Your task to perform on an android device: Search for the most popular books on Goodreads Image 0: 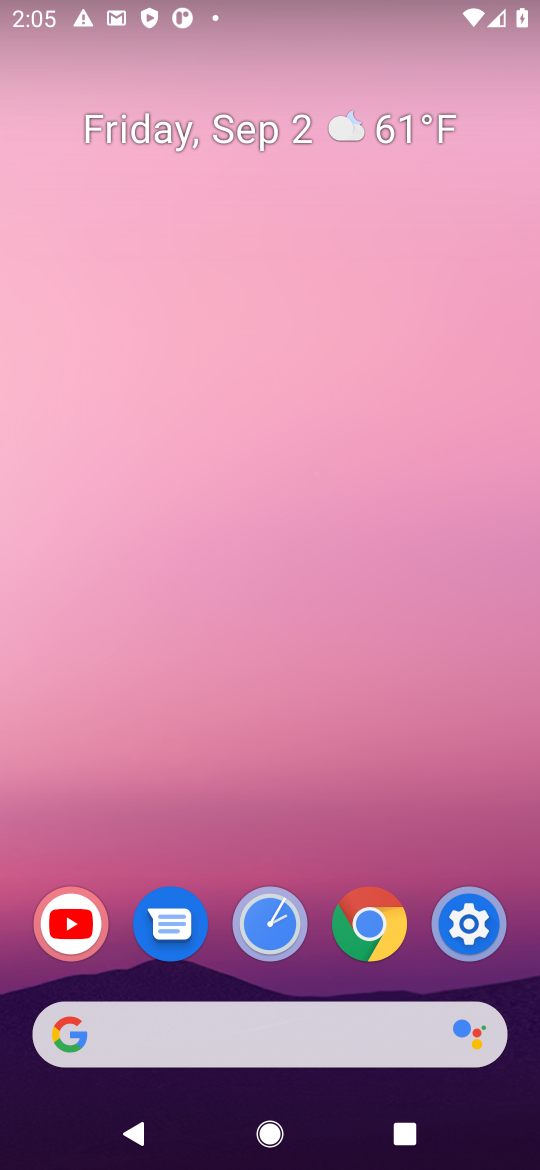
Step 0: press home button
Your task to perform on an android device: Search for the most popular books on Goodreads Image 1: 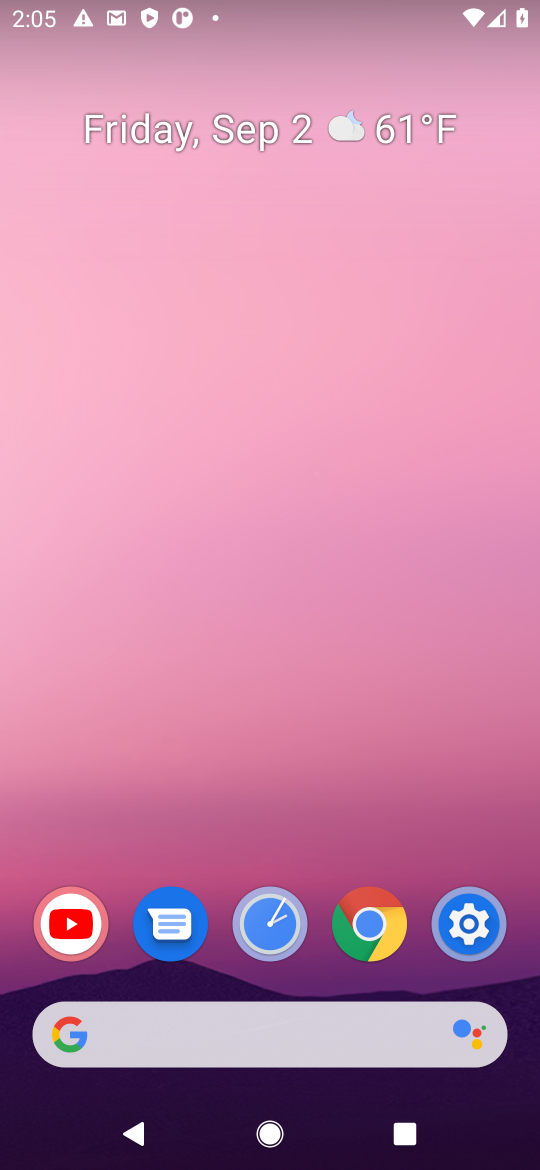
Step 1: click (368, 1037)
Your task to perform on an android device: Search for the most popular books on Goodreads Image 2: 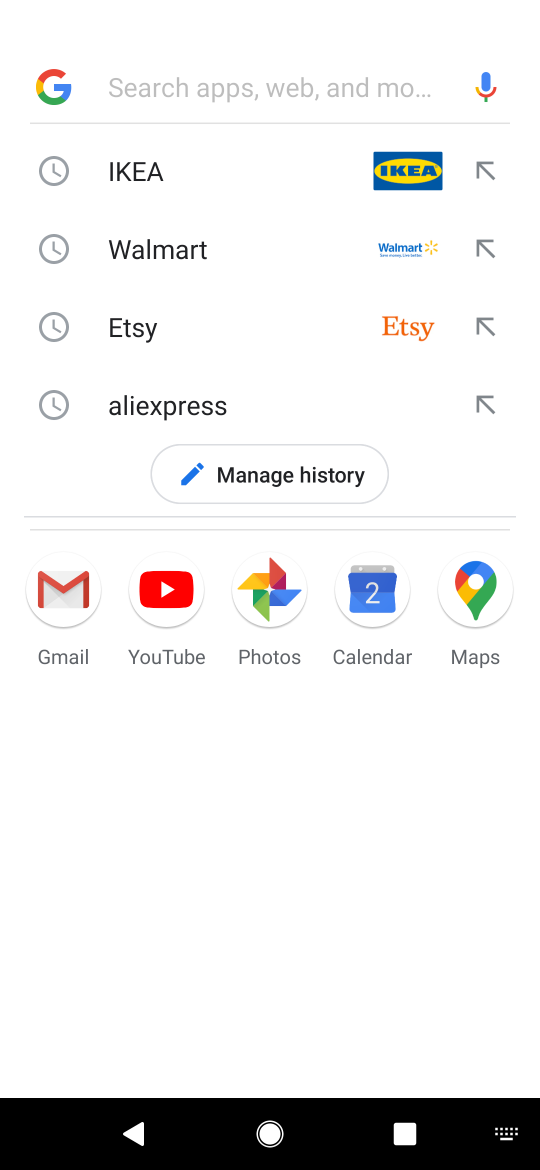
Step 2: press enter
Your task to perform on an android device: Search for the most popular books on Goodreads Image 3: 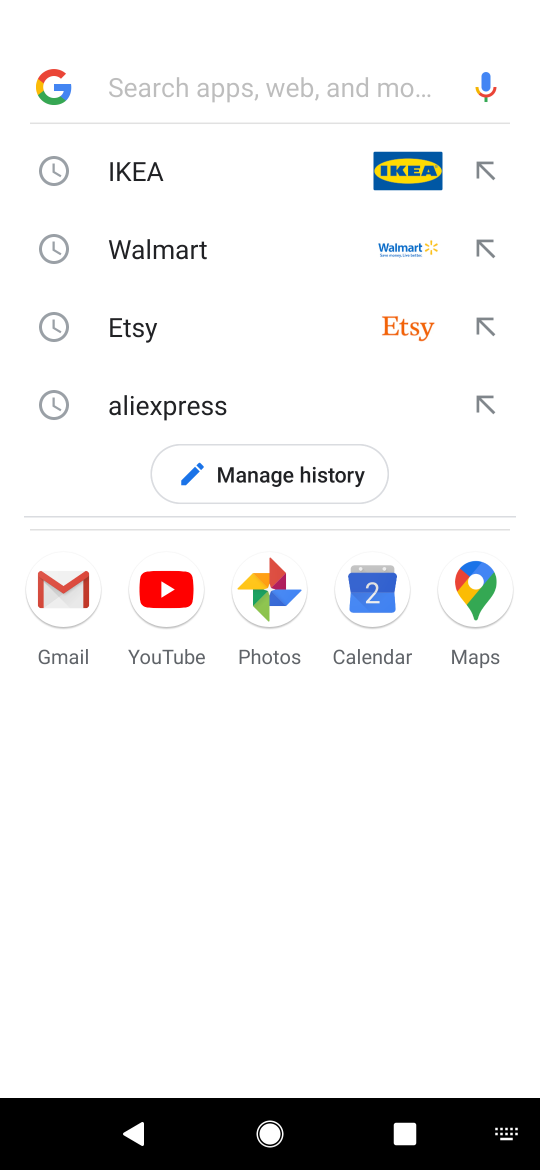
Step 3: type "gooddreads"
Your task to perform on an android device: Search for the most popular books on Goodreads Image 4: 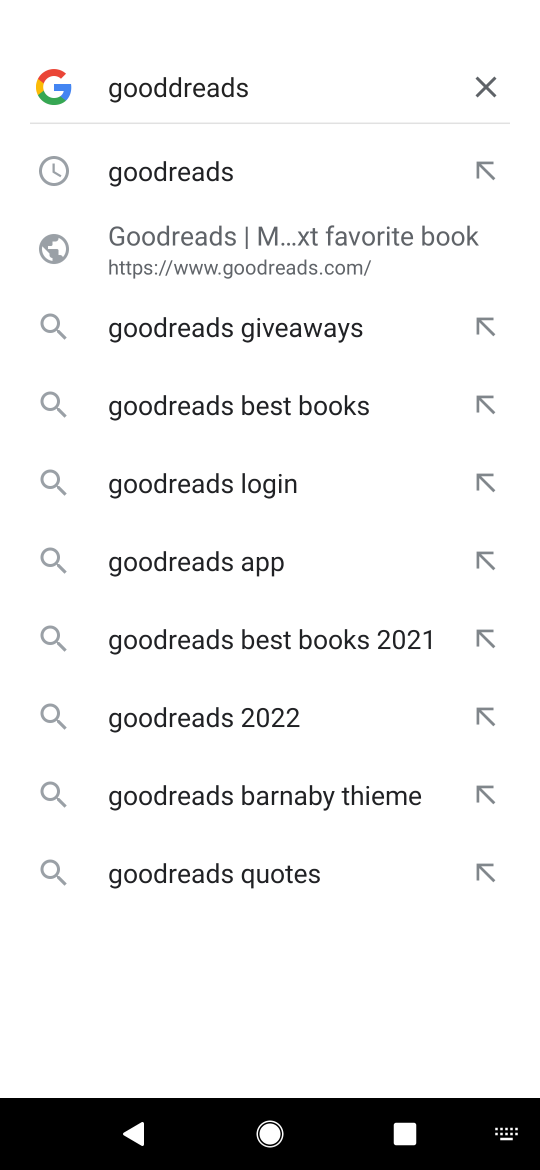
Step 4: click (249, 177)
Your task to perform on an android device: Search for the most popular books on Goodreads Image 5: 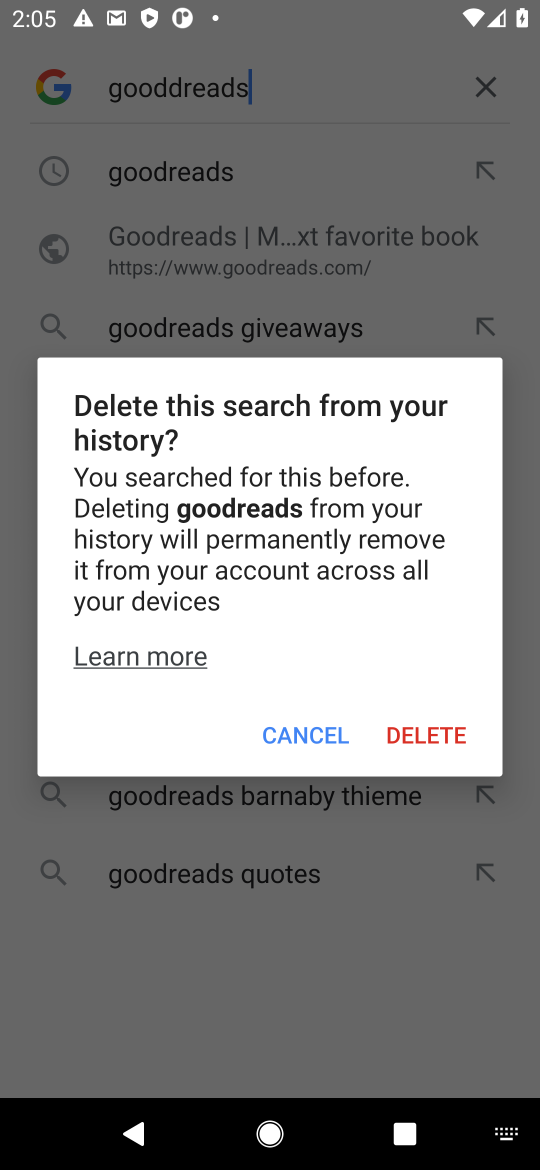
Step 5: click (285, 727)
Your task to perform on an android device: Search for the most popular books on Goodreads Image 6: 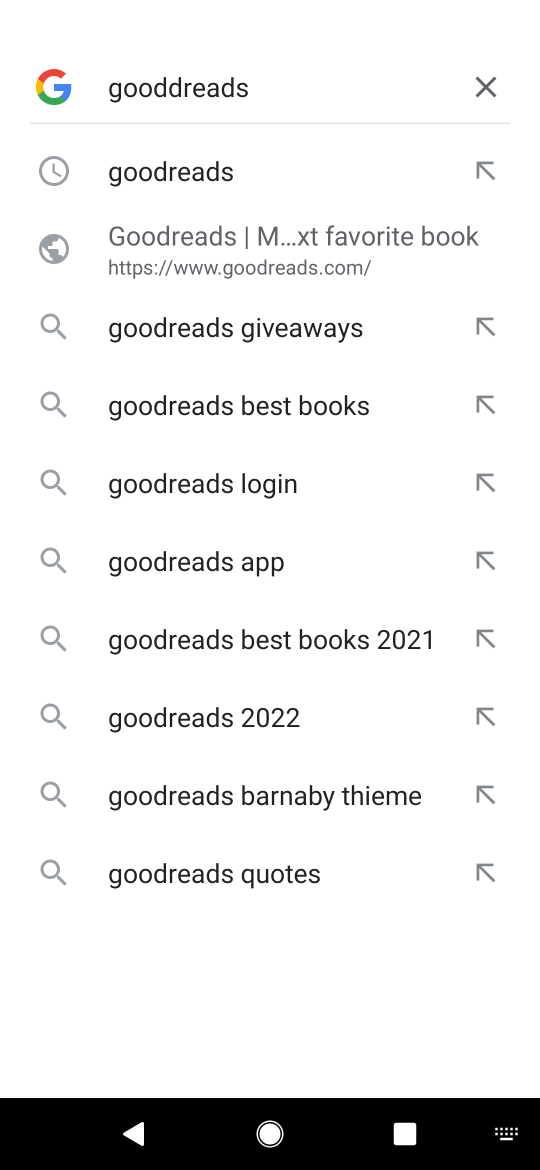
Step 6: click (191, 169)
Your task to perform on an android device: Search for the most popular books on Goodreads Image 7: 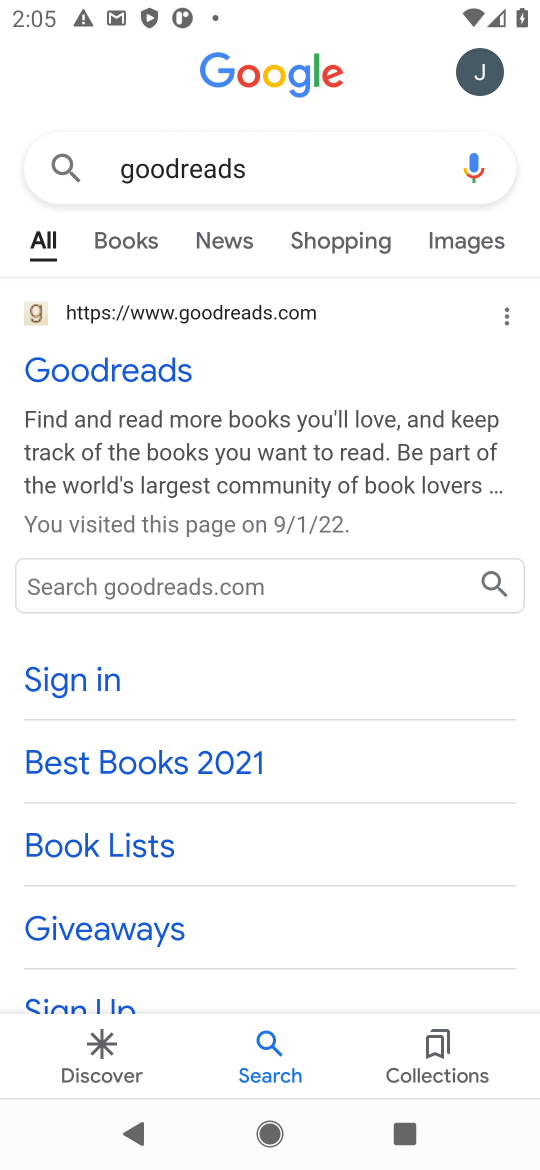
Step 7: click (141, 375)
Your task to perform on an android device: Search for the most popular books on Goodreads Image 8: 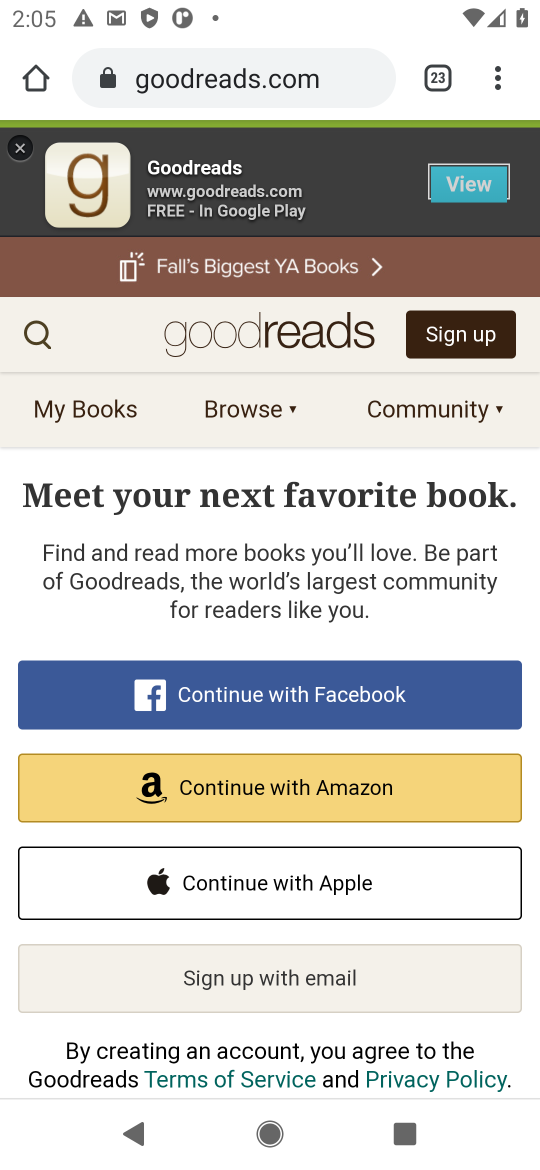
Step 8: click (81, 333)
Your task to perform on an android device: Search for the most popular books on Goodreads Image 9: 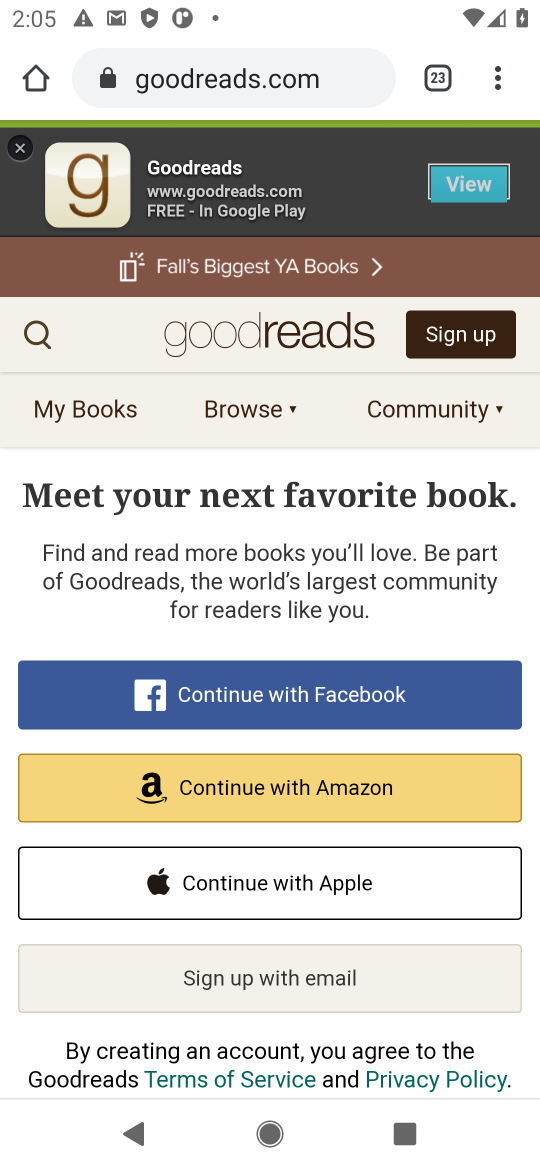
Step 9: click (24, 326)
Your task to perform on an android device: Search for the most popular books on Goodreads Image 10: 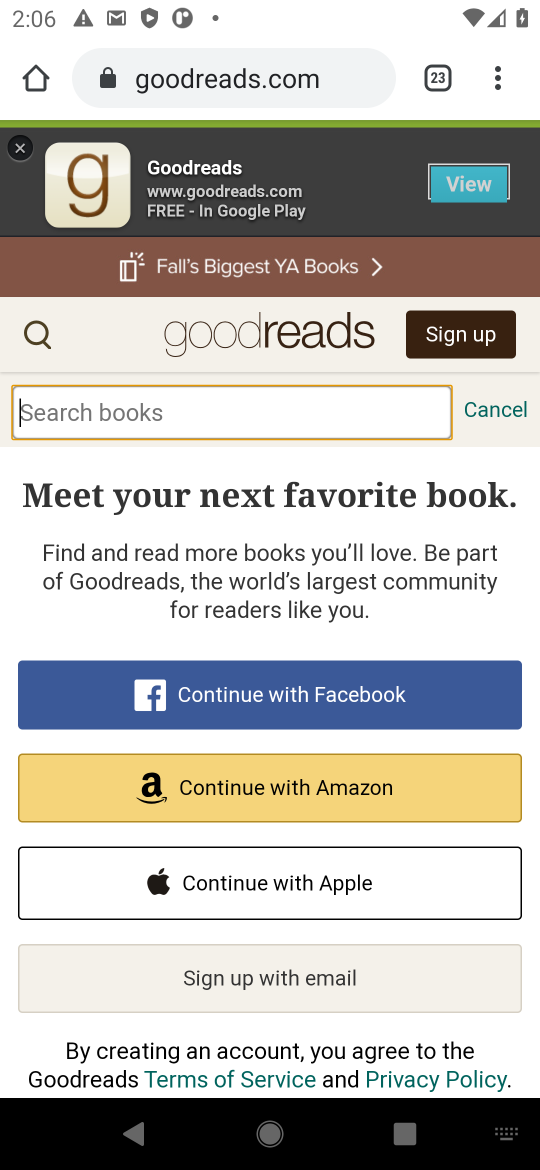
Step 10: type "most popular books"
Your task to perform on an android device: Search for the most popular books on Goodreads Image 11: 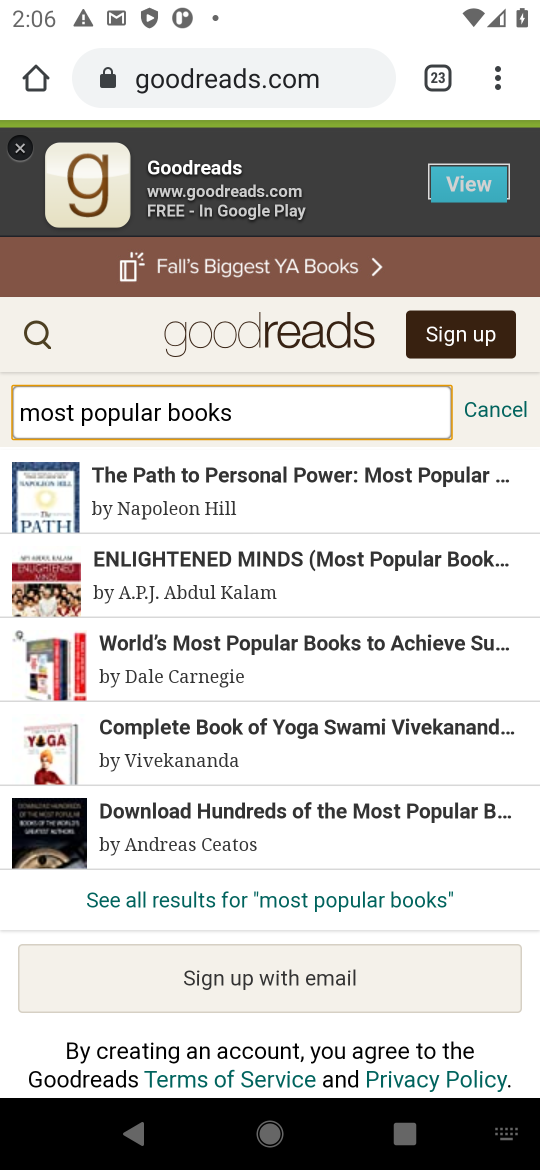
Step 11: task complete